Your task to perform on an android device: Go to ESPN.com Image 0: 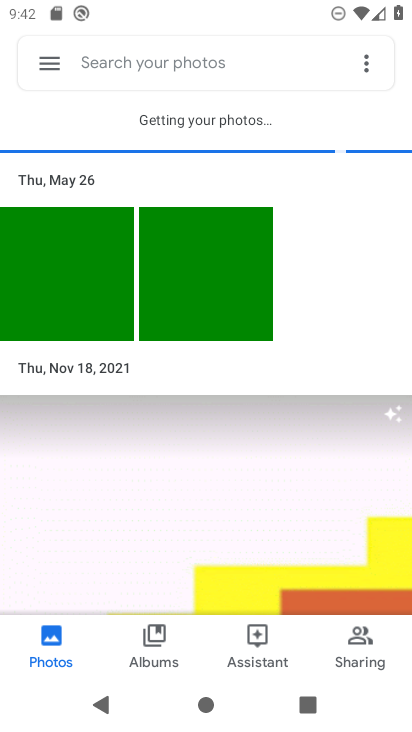
Step 0: press home button
Your task to perform on an android device: Go to ESPN.com Image 1: 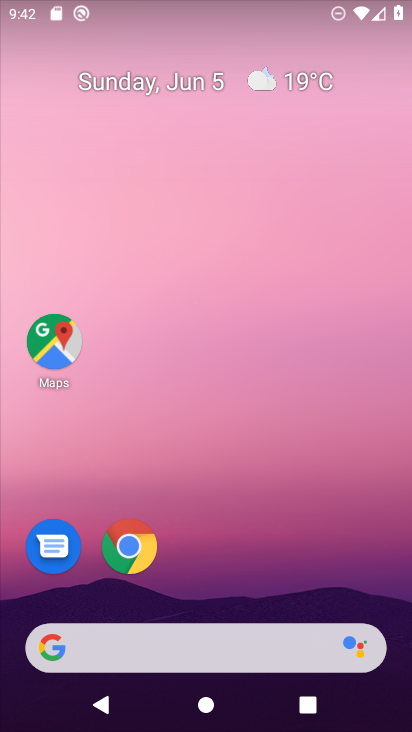
Step 1: click (137, 539)
Your task to perform on an android device: Go to ESPN.com Image 2: 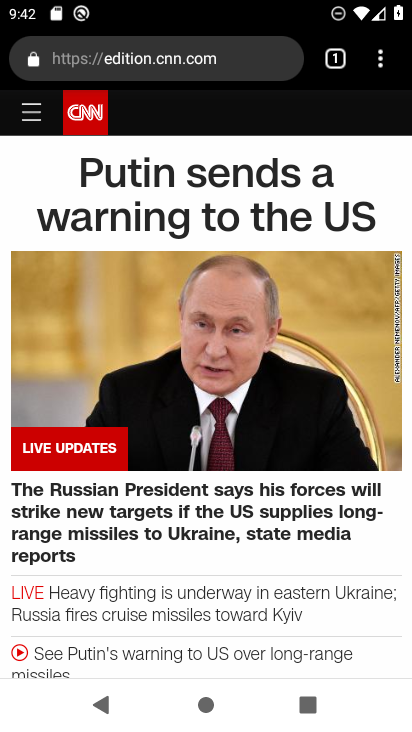
Step 2: click (342, 54)
Your task to perform on an android device: Go to ESPN.com Image 3: 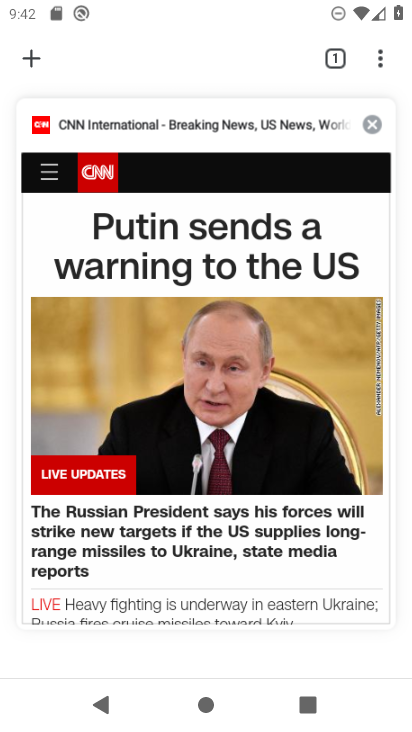
Step 3: click (23, 51)
Your task to perform on an android device: Go to ESPN.com Image 4: 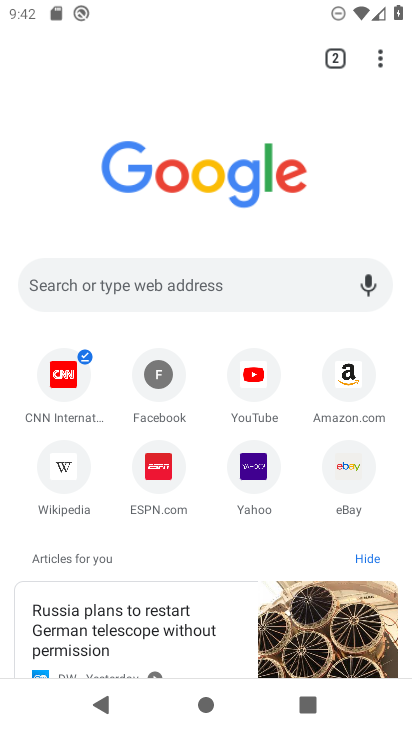
Step 4: click (149, 473)
Your task to perform on an android device: Go to ESPN.com Image 5: 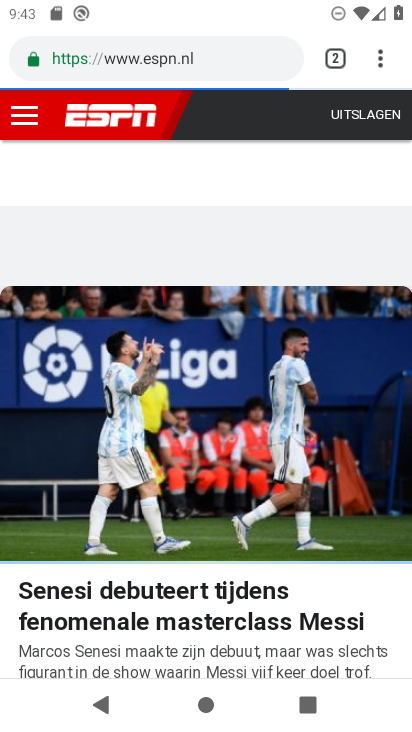
Step 5: task complete